Your task to perform on an android device: Go to Wikipedia Image 0: 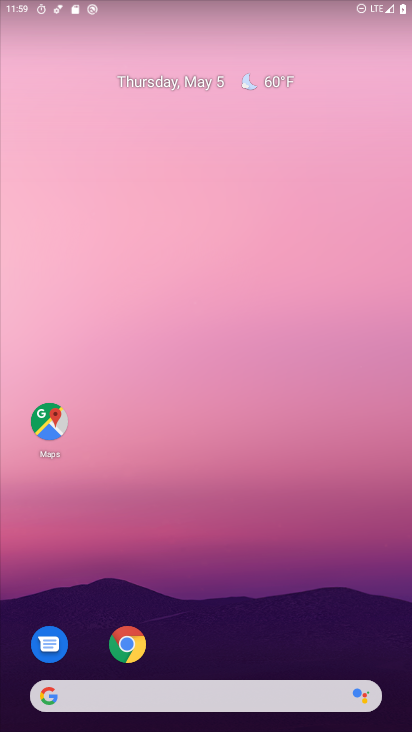
Step 0: drag from (360, 643) to (332, 89)
Your task to perform on an android device: Go to Wikipedia Image 1: 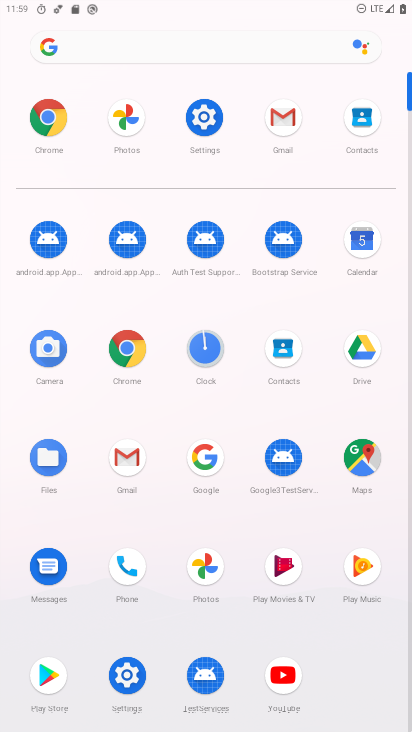
Step 1: click (60, 116)
Your task to perform on an android device: Go to Wikipedia Image 2: 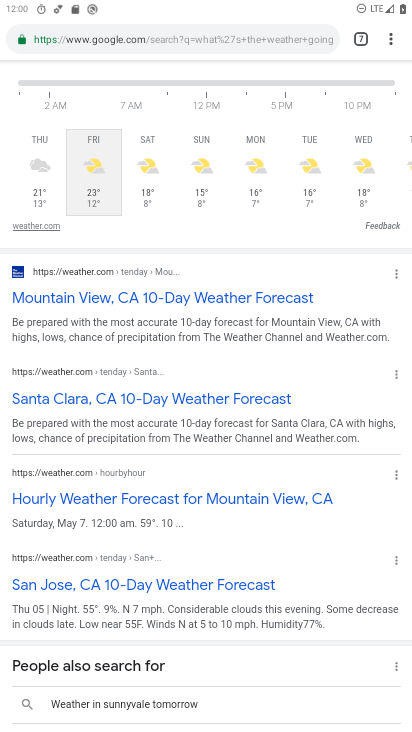
Step 2: drag from (124, 171) to (137, 557)
Your task to perform on an android device: Go to Wikipedia Image 3: 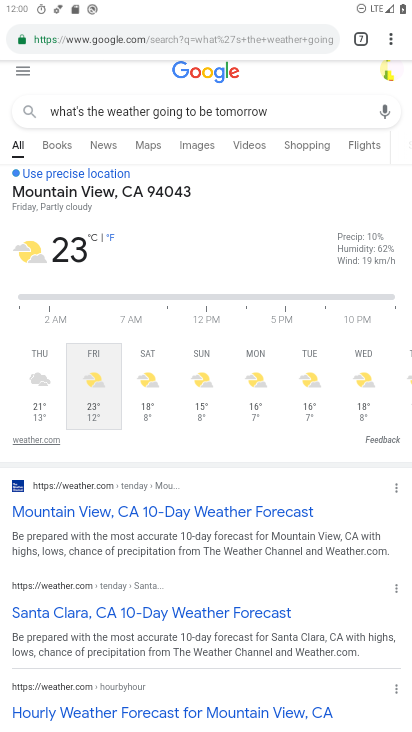
Step 3: click (355, 38)
Your task to perform on an android device: Go to Wikipedia Image 4: 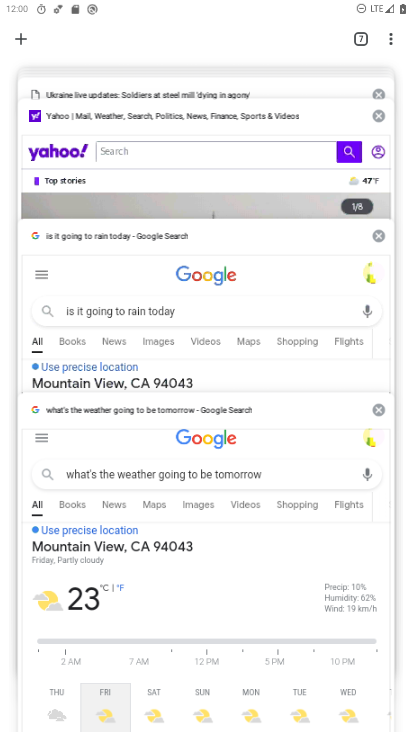
Step 4: click (16, 35)
Your task to perform on an android device: Go to Wikipedia Image 5: 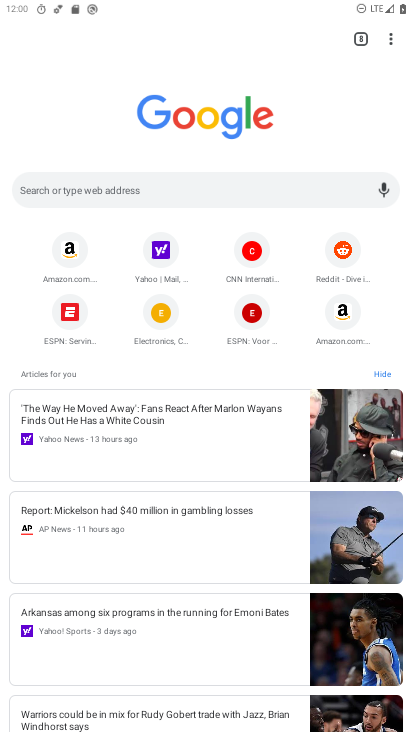
Step 5: click (211, 195)
Your task to perform on an android device: Go to Wikipedia Image 6: 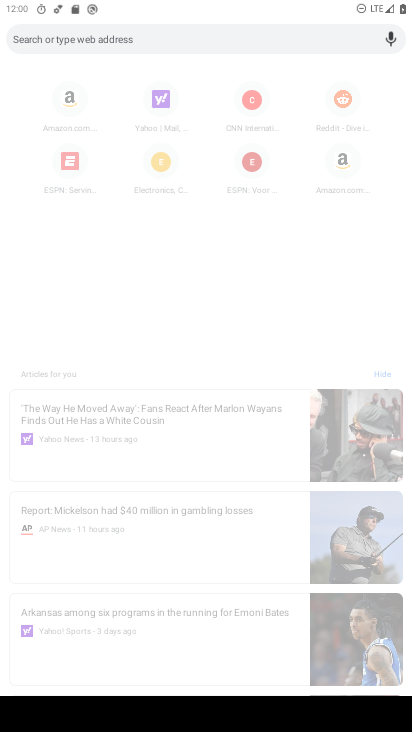
Step 6: type "wikipedia"
Your task to perform on an android device: Go to Wikipedia Image 7: 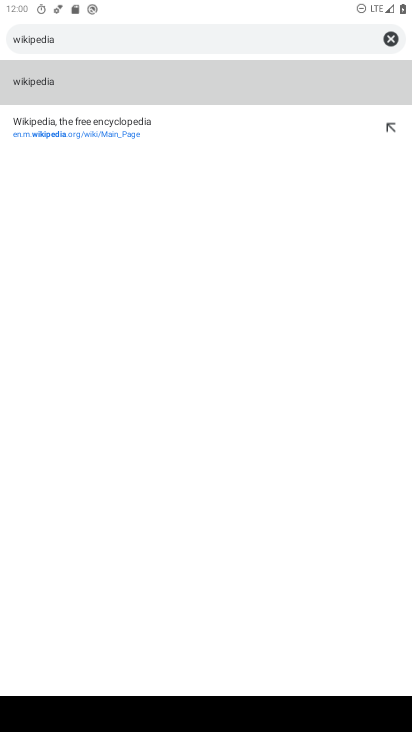
Step 7: click (49, 129)
Your task to perform on an android device: Go to Wikipedia Image 8: 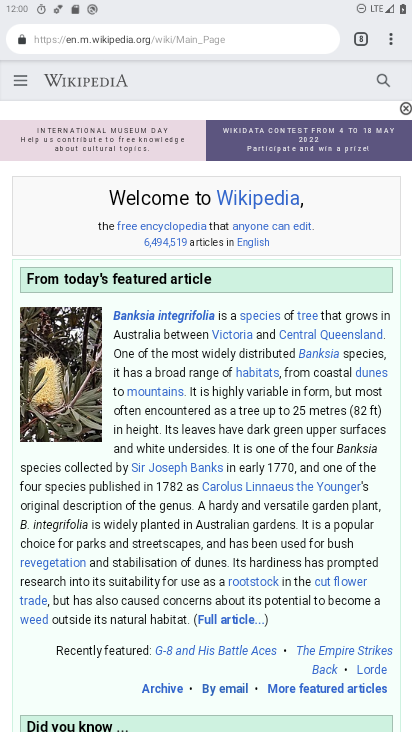
Step 8: task complete